Your task to perform on an android device: What is the recent news? Image 0: 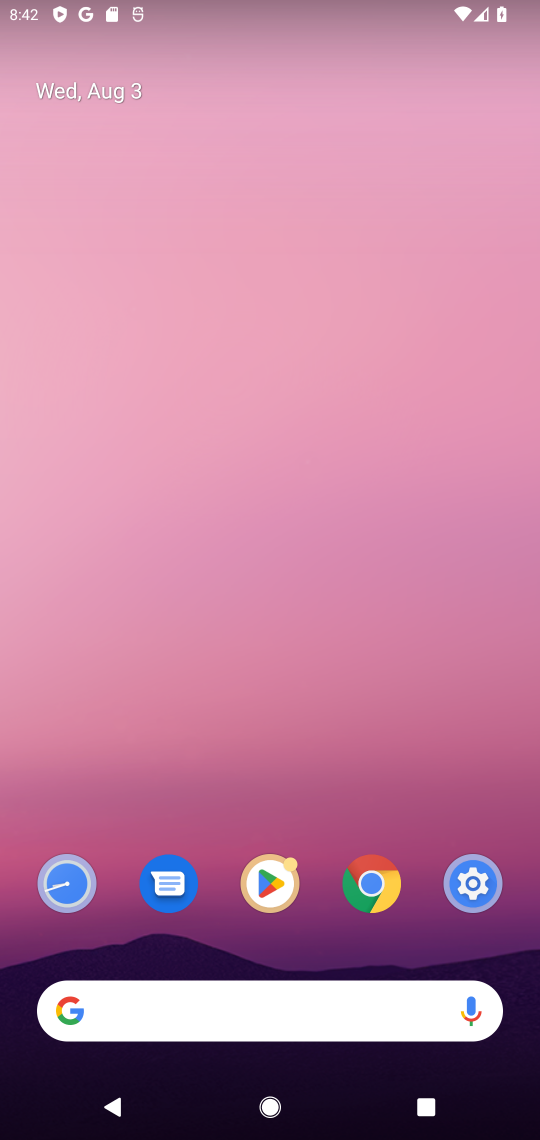
Step 0: click (367, 873)
Your task to perform on an android device: What is the recent news? Image 1: 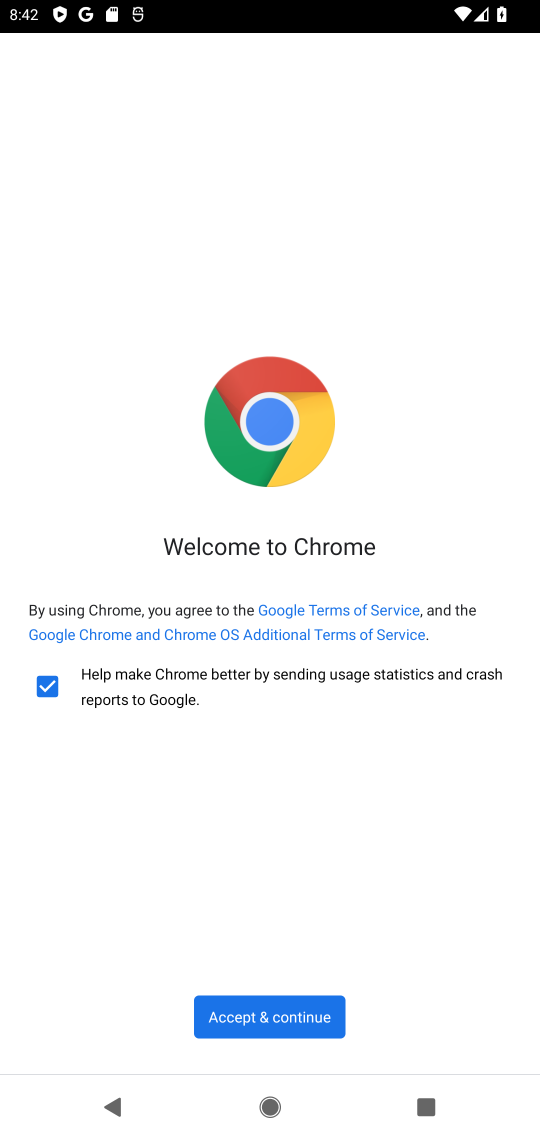
Step 1: click (279, 1016)
Your task to perform on an android device: What is the recent news? Image 2: 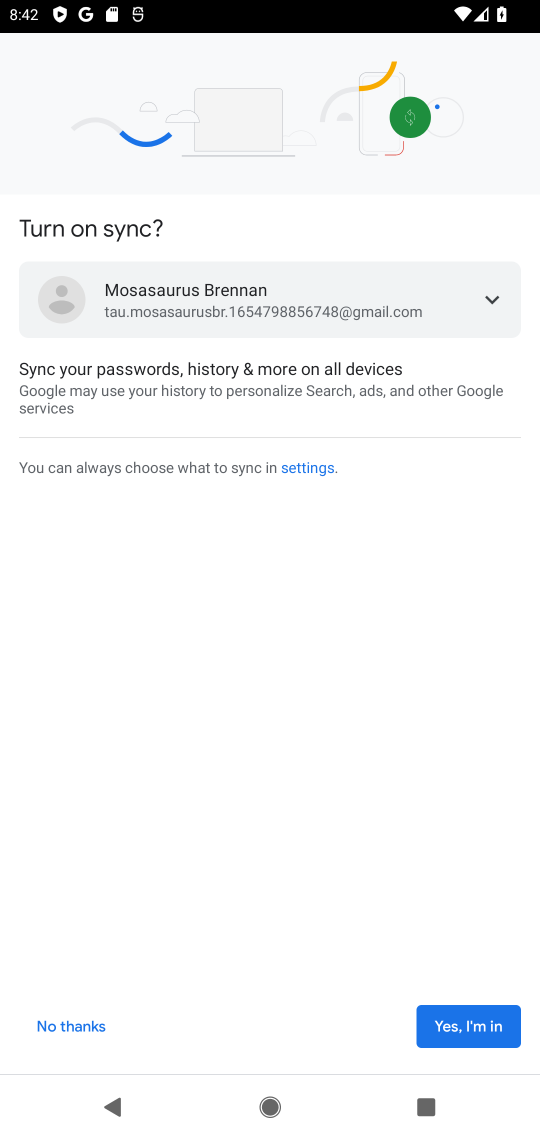
Step 2: click (488, 1037)
Your task to perform on an android device: What is the recent news? Image 3: 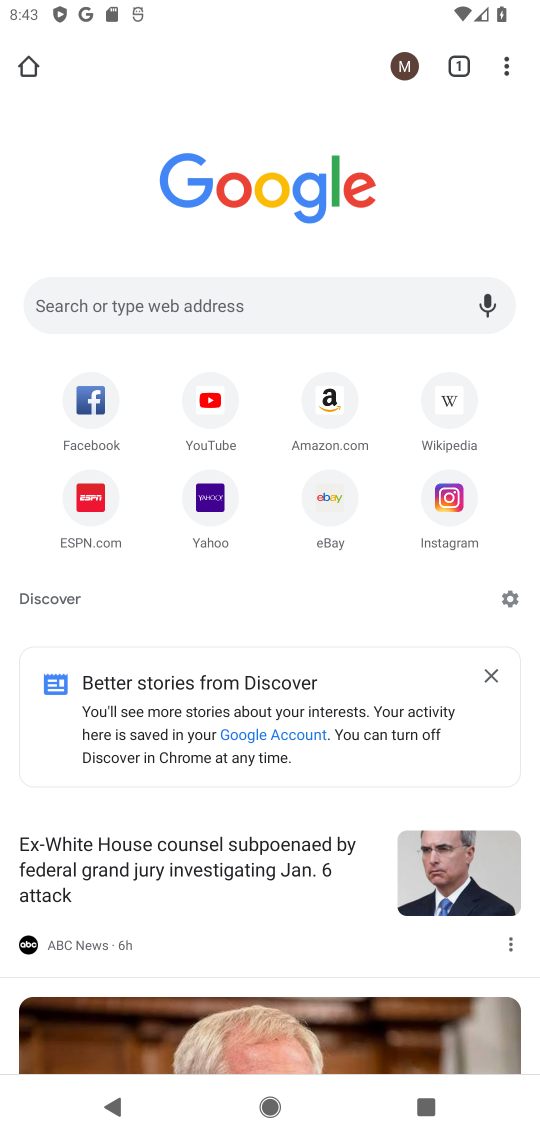
Step 3: click (143, 317)
Your task to perform on an android device: What is the recent news? Image 4: 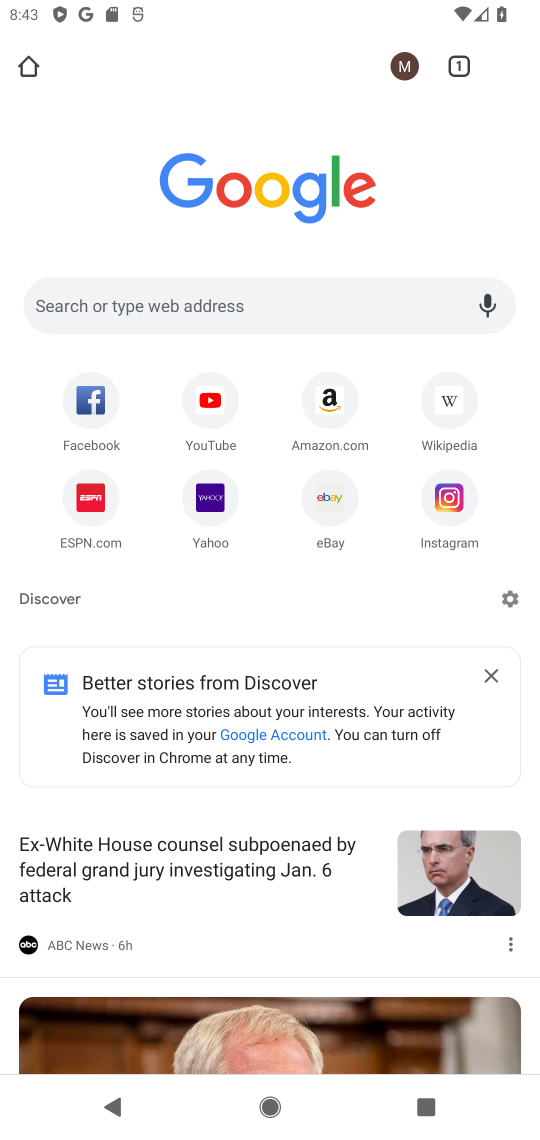
Step 4: click (147, 308)
Your task to perform on an android device: What is the recent news? Image 5: 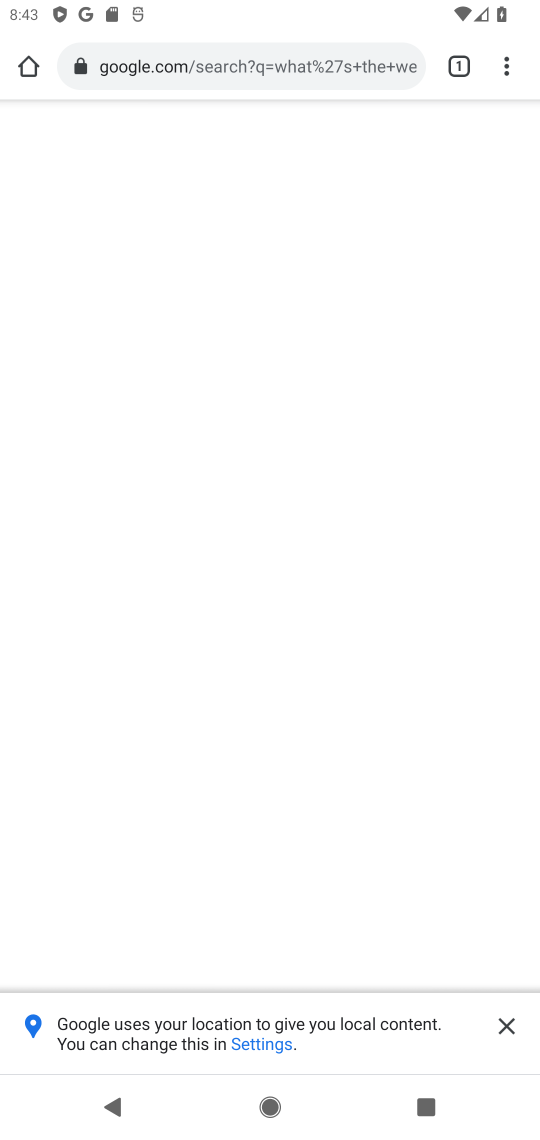
Step 5: type "What is the recent news?"
Your task to perform on an android device: What is the recent news? Image 6: 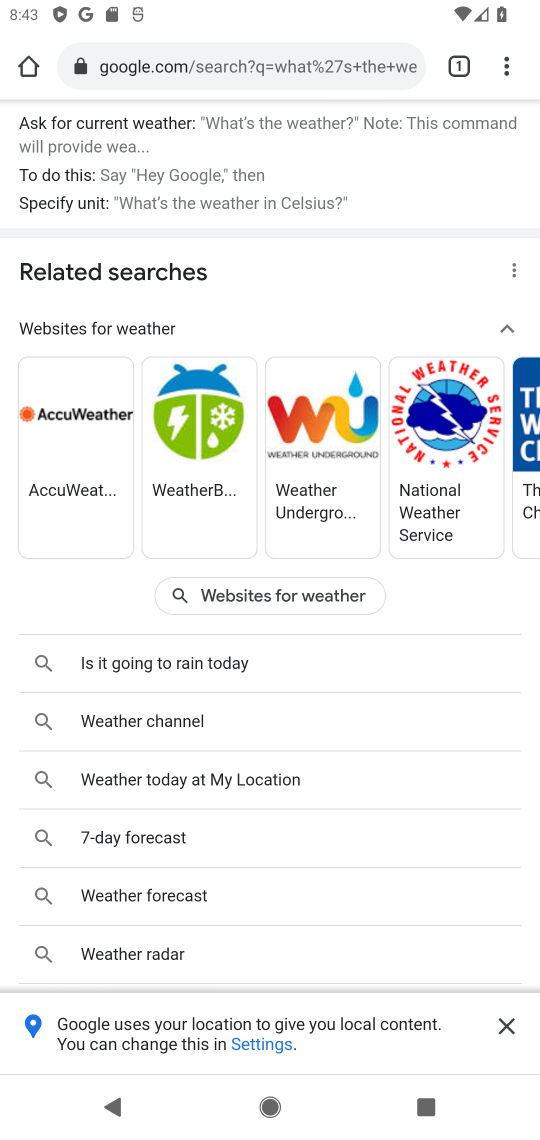
Step 6: task complete